Your task to perform on an android device: turn off sleep mode Image 0: 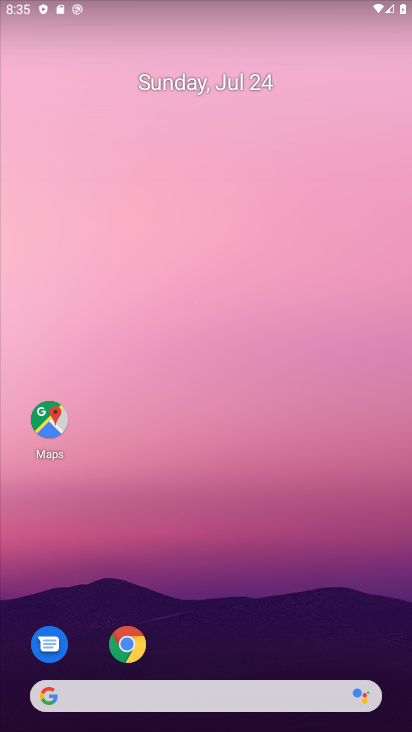
Step 0: drag from (151, 666) to (157, 265)
Your task to perform on an android device: turn off sleep mode Image 1: 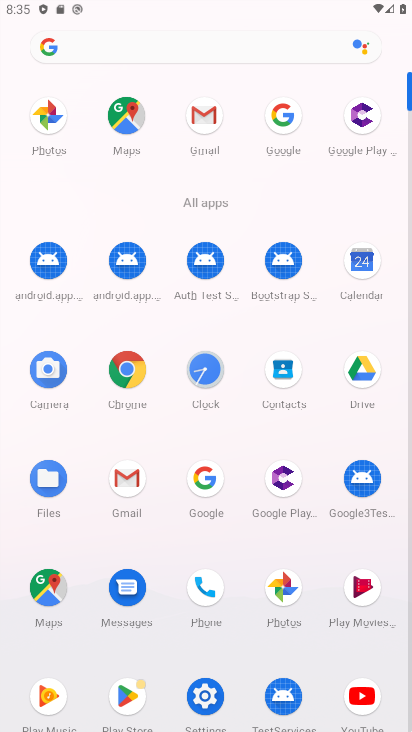
Step 1: click (205, 148)
Your task to perform on an android device: turn off sleep mode Image 2: 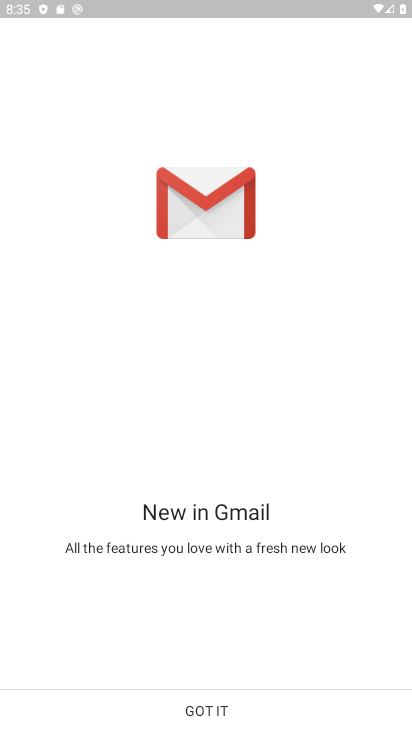
Step 2: task complete